Your task to perform on an android device: change the clock display to show seconds Image 0: 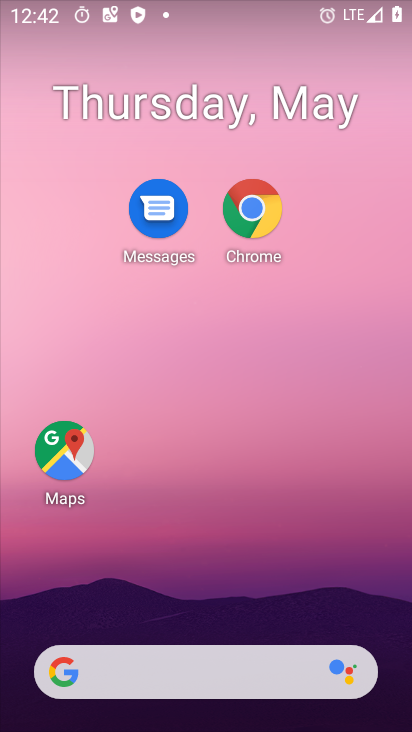
Step 0: drag from (215, 599) to (8, 366)
Your task to perform on an android device: change the clock display to show seconds Image 1: 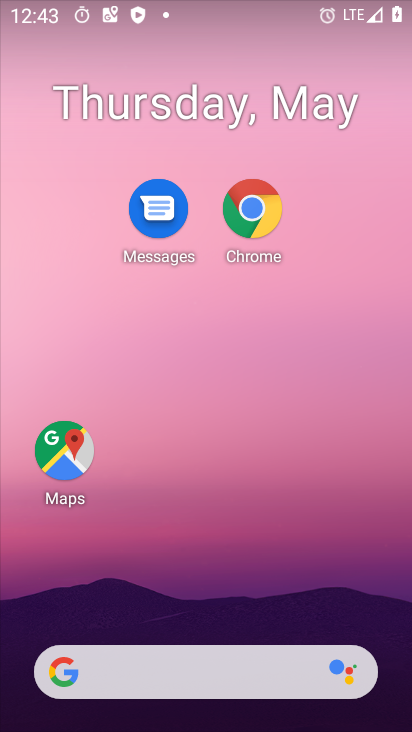
Step 1: drag from (171, 621) to (238, 81)
Your task to perform on an android device: change the clock display to show seconds Image 2: 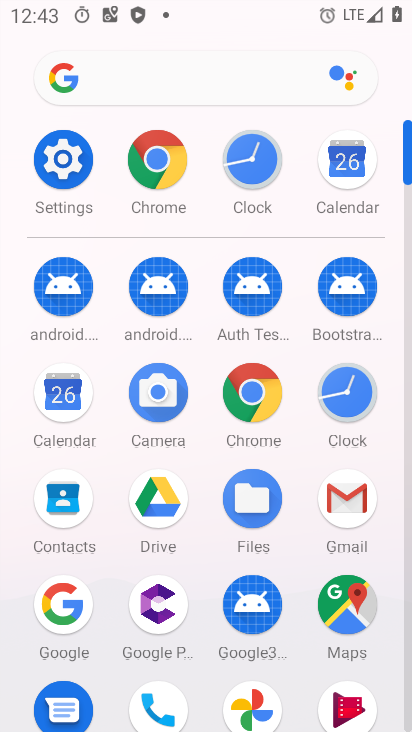
Step 2: click (346, 405)
Your task to perform on an android device: change the clock display to show seconds Image 3: 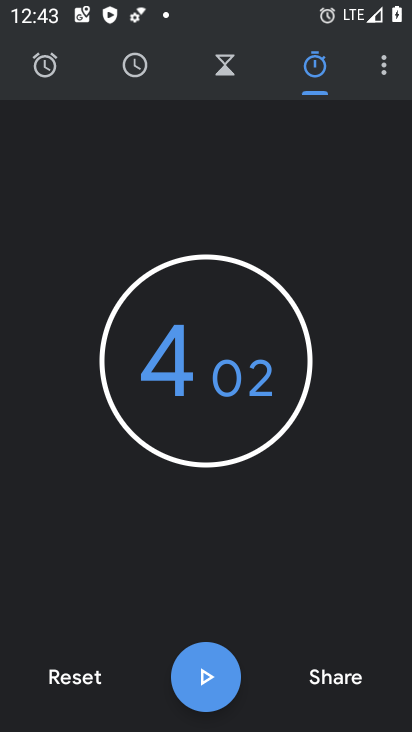
Step 3: click (381, 77)
Your task to perform on an android device: change the clock display to show seconds Image 4: 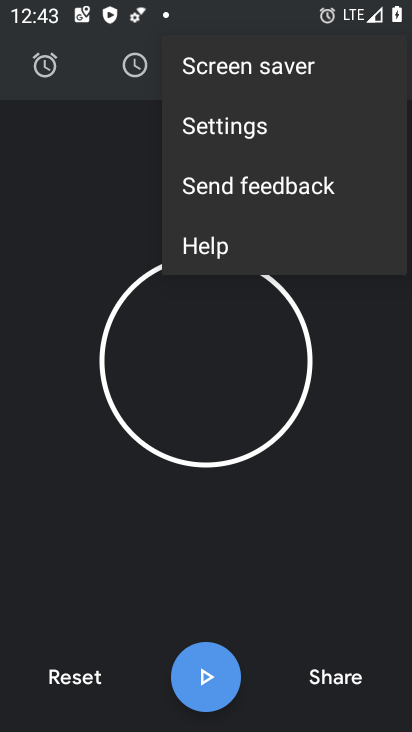
Step 4: click (294, 140)
Your task to perform on an android device: change the clock display to show seconds Image 5: 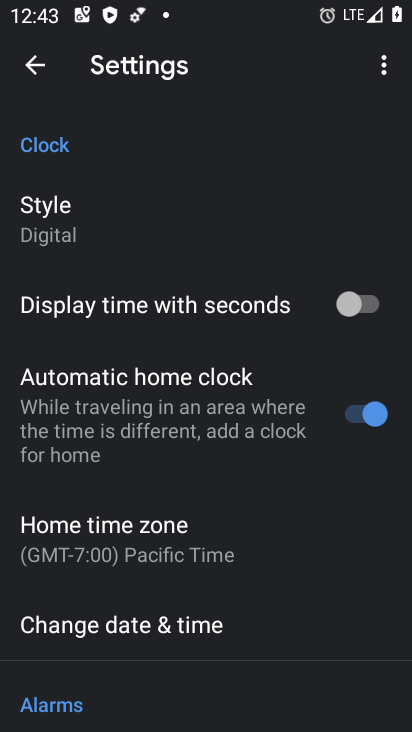
Step 5: click (375, 307)
Your task to perform on an android device: change the clock display to show seconds Image 6: 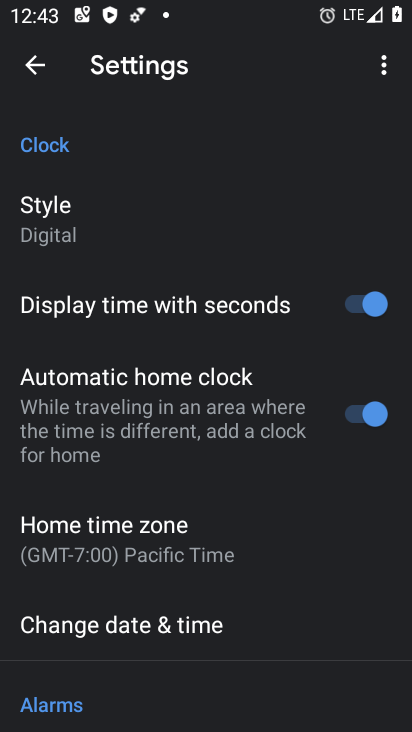
Step 6: task complete